Your task to perform on an android device: turn on wifi Image 0: 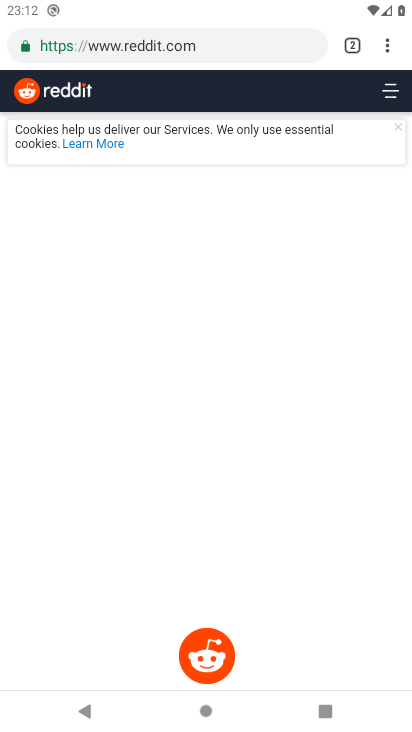
Step 0: drag from (300, 4) to (348, 351)
Your task to perform on an android device: turn on wifi Image 1: 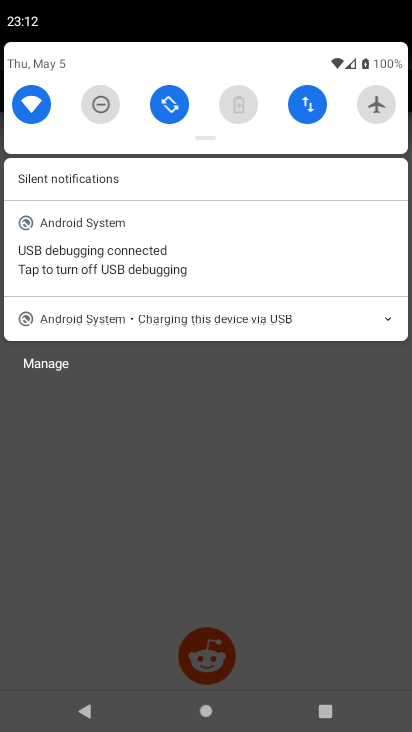
Step 1: task complete